Your task to perform on an android device: all mails in gmail Image 0: 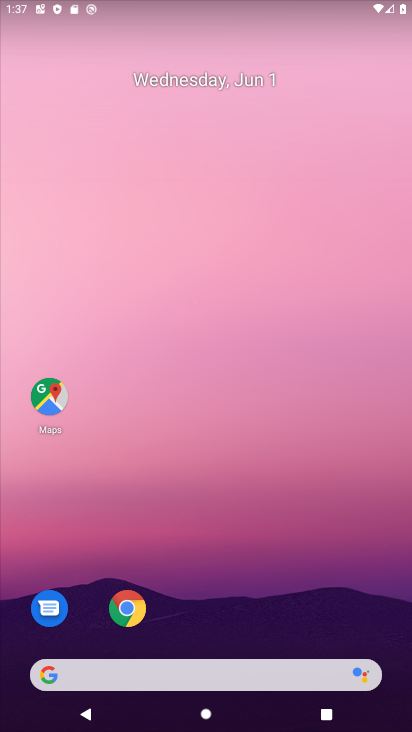
Step 0: drag from (165, 619) to (249, 81)
Your task to perform on an android device: all mails in gmail Image 1: 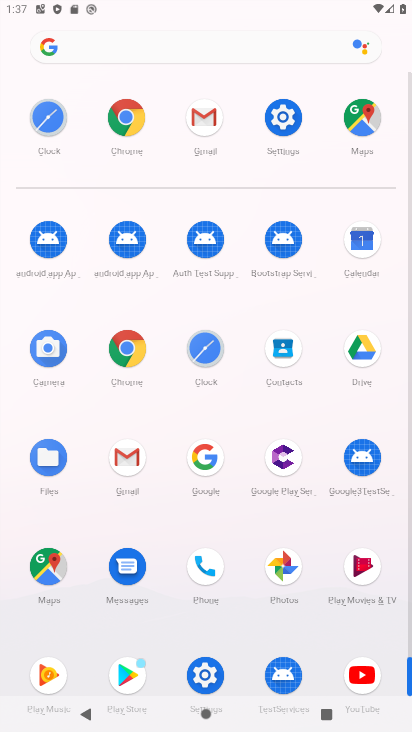
Step 1: click (205, 119)
Your task to perform on an android device: all mails in gmail Image 2: 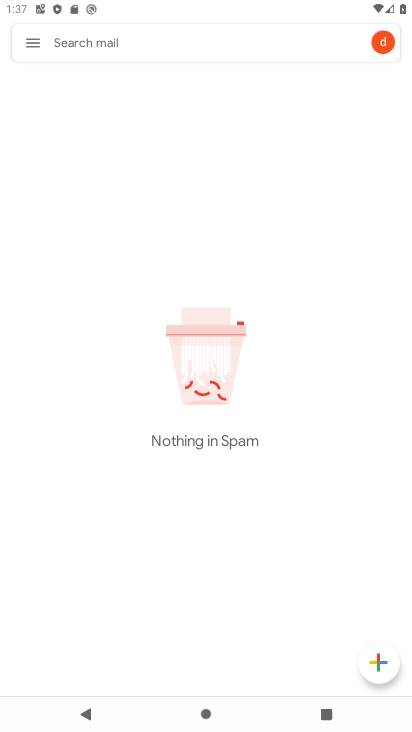
Step 2: click (38, 35)
Your task to perform on an android device: all mails in gmail Image 3: 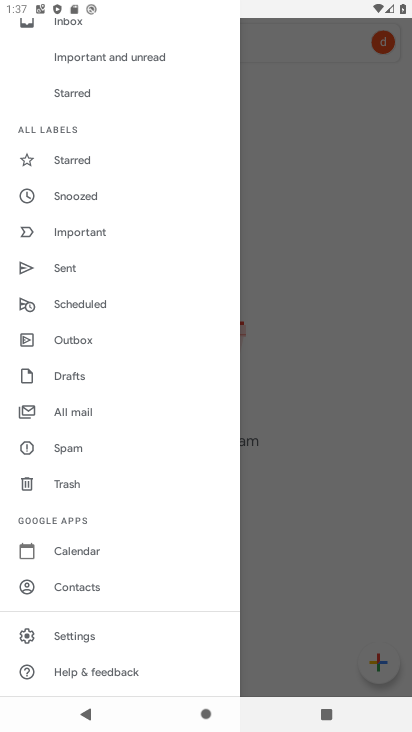
Step 3: click (75, 408)
Your task to perform on an android device: all mails in gmail Image 4: 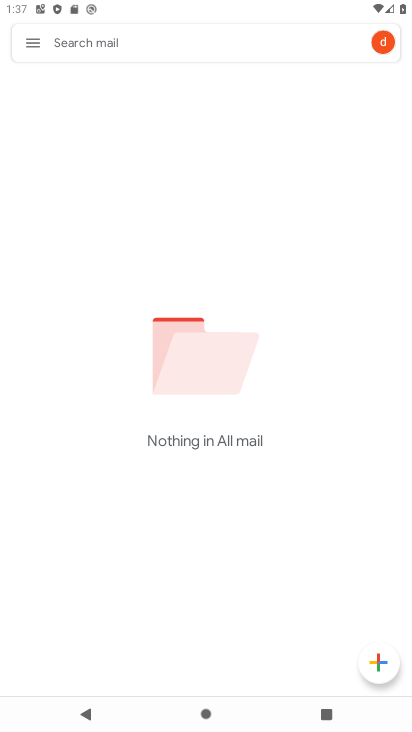
Step 4: task complete